Your task to perform on an android device: turn on showing notifications on the lock screen Image 0: 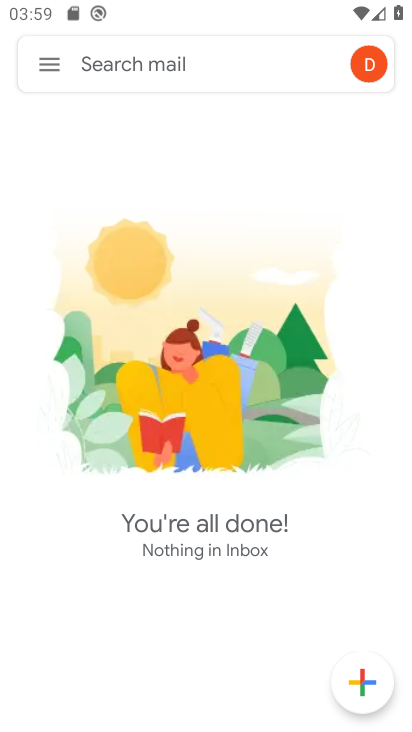
Step 0: press home button
Your task to perform on an android device: turn on showing notifications on the lock screen Image 1: 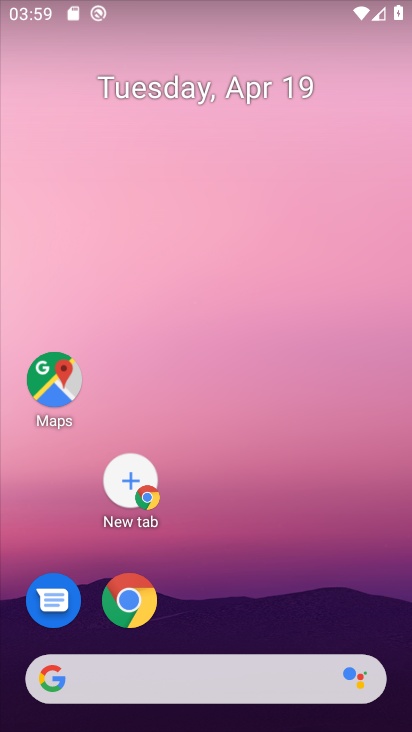
Step 1: drag from (274, 14) to (260, 501)
Your task to perform on an android device: turn on showing notifications on the lock screen Image 2: 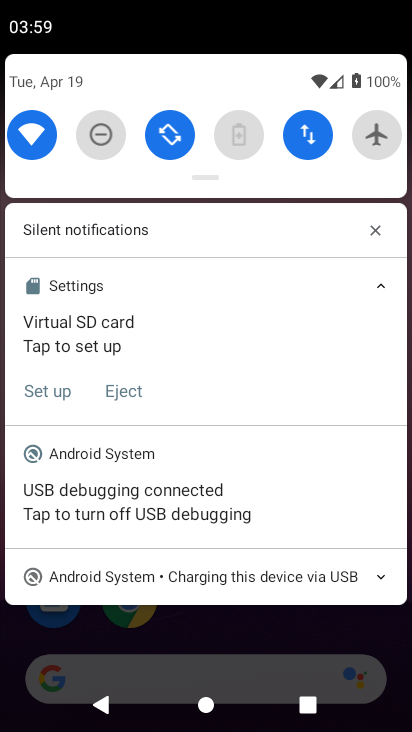
Step 2: drag from (252, 80) to (206, 645)
Your task to perform on an android device: turn on showing notifications on the lock screen Image 3: 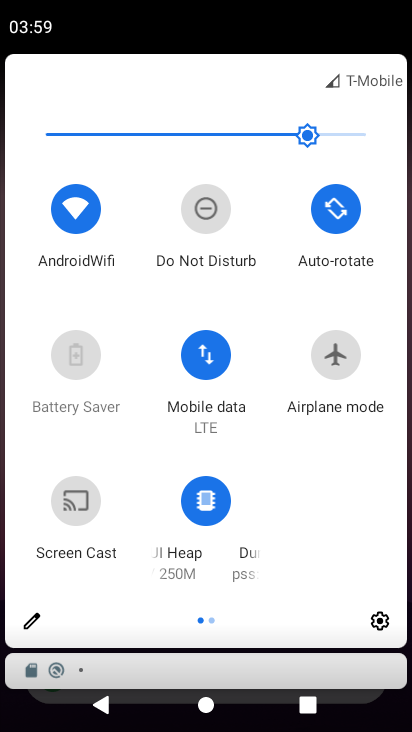
Step 3: click (379, 630)
Your task to perform on an android device: turn on showing notifications on the lock screen Image 4: 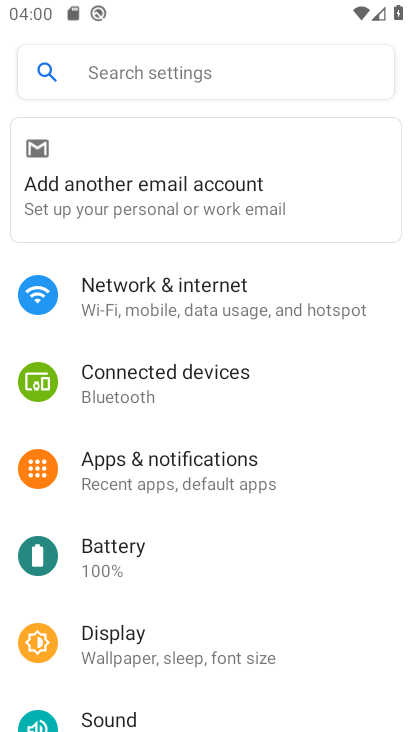
Step 4: click (158, 460)
Your task to perform on an android device: turn on showing notifications on the lock screen Image 5: 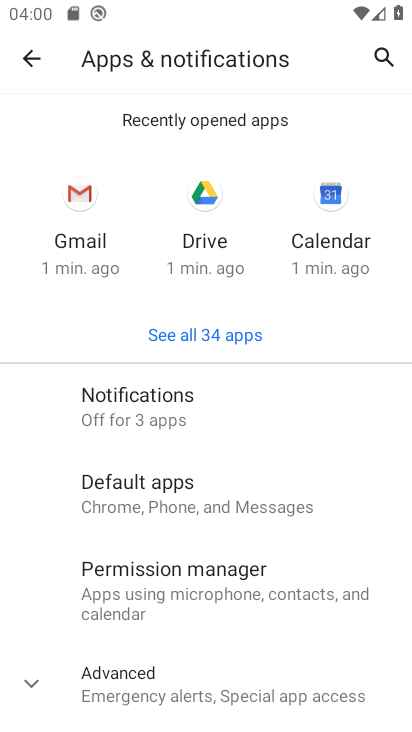
Step 5: drag from (134, 655) to (83, 190)
Your task to perform on an android device: turn on showing notifications on the lock screen Image 6: 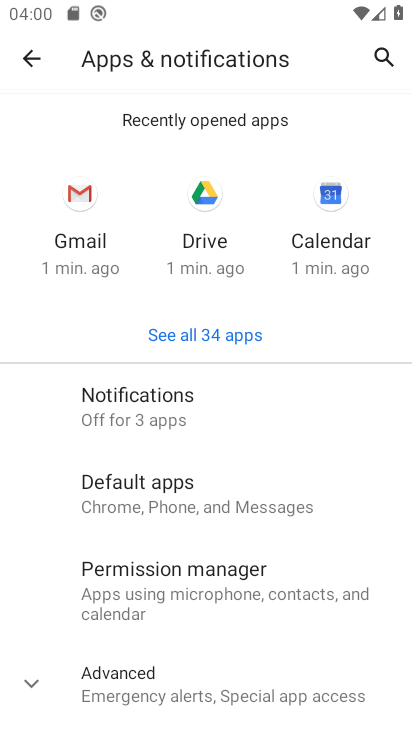
Step 6: drag from (127, 644) to (173, 111)
Your task to perform on an android device: turn on showing notifications on the lock screen Image 7: 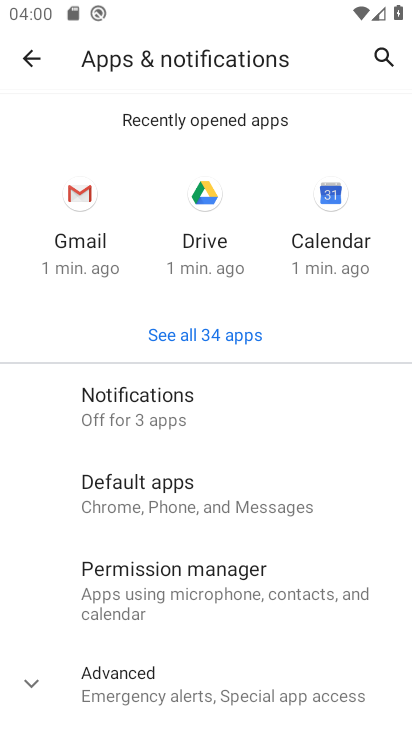
Step 7: click (128, 410)
Your task to perform on an android device: turn on showing notifications on the lock screen Image 8: 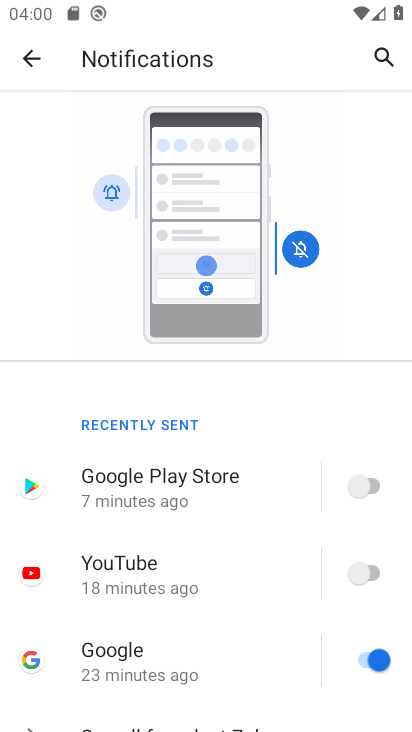
Step 8: drag from (129, 591) to (150, 144)
Your task to perform on an android device: turn on showing notifications on the lock screen Image 9: 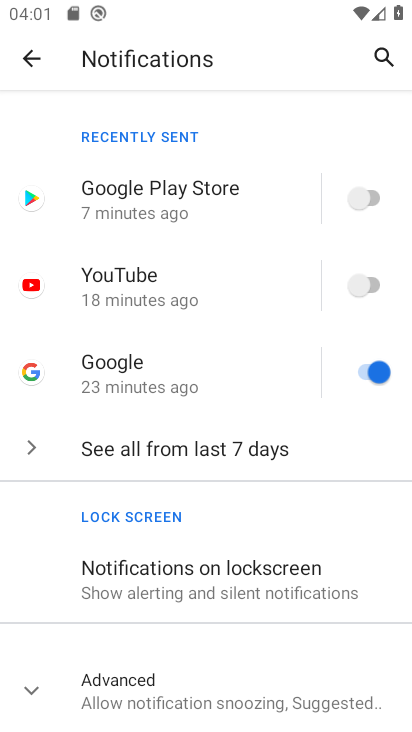
Step 9: click (142, 565)
Your task to perform on an android device: turn on showing notifications on the lock screen Image 10: 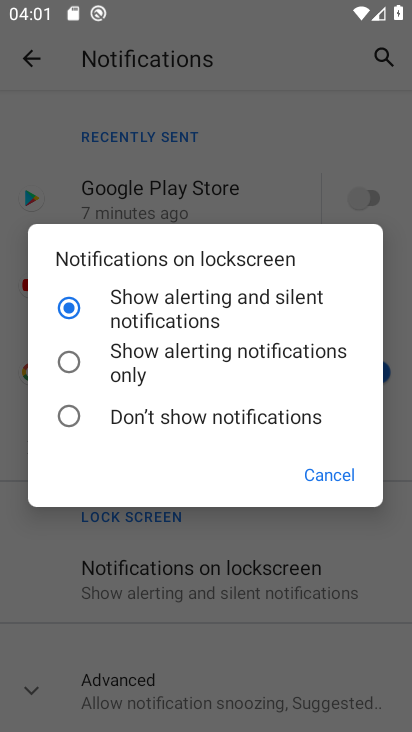
Step 10: task complete